Your task to perform on an android device: empty trash in google photos Image 0: 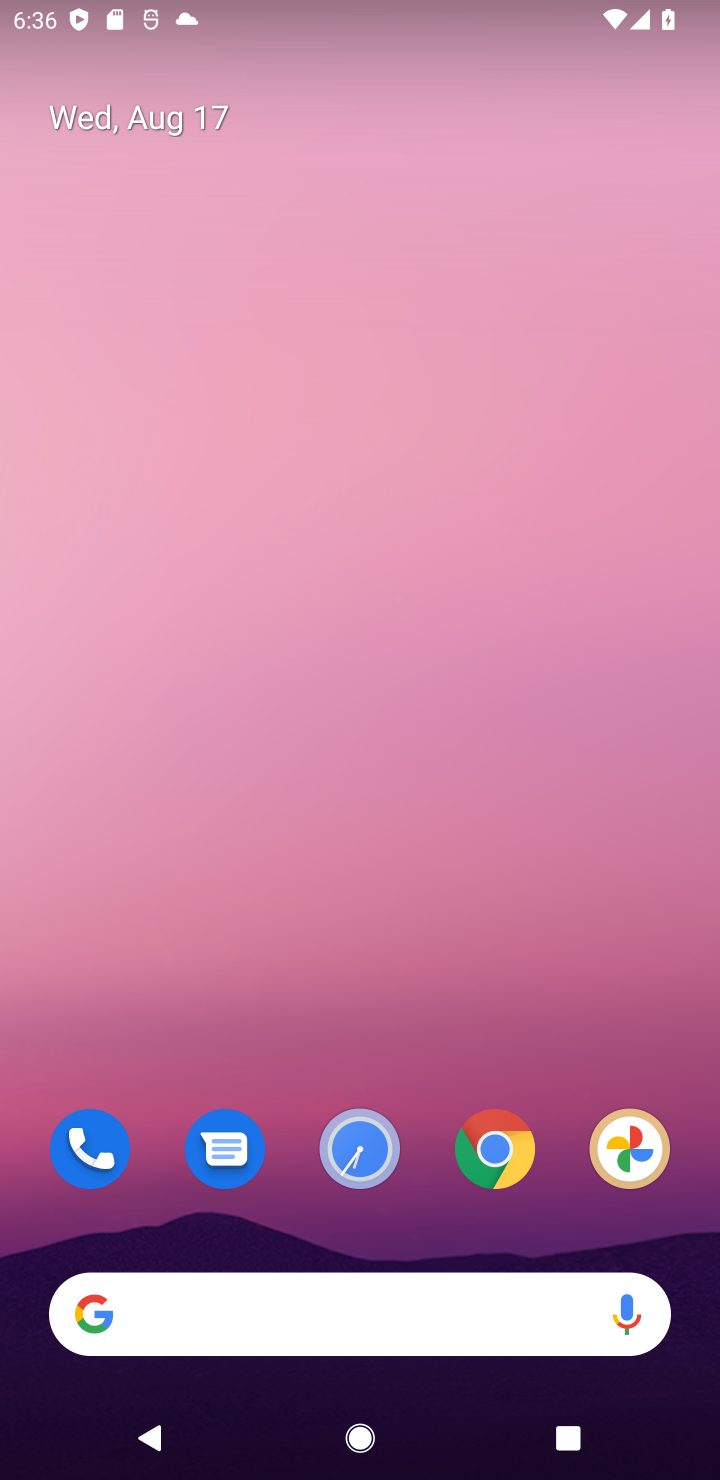
Step 0: click (637, 1151)
Your task to perform on an android device: empty trash in google photos Image 1: 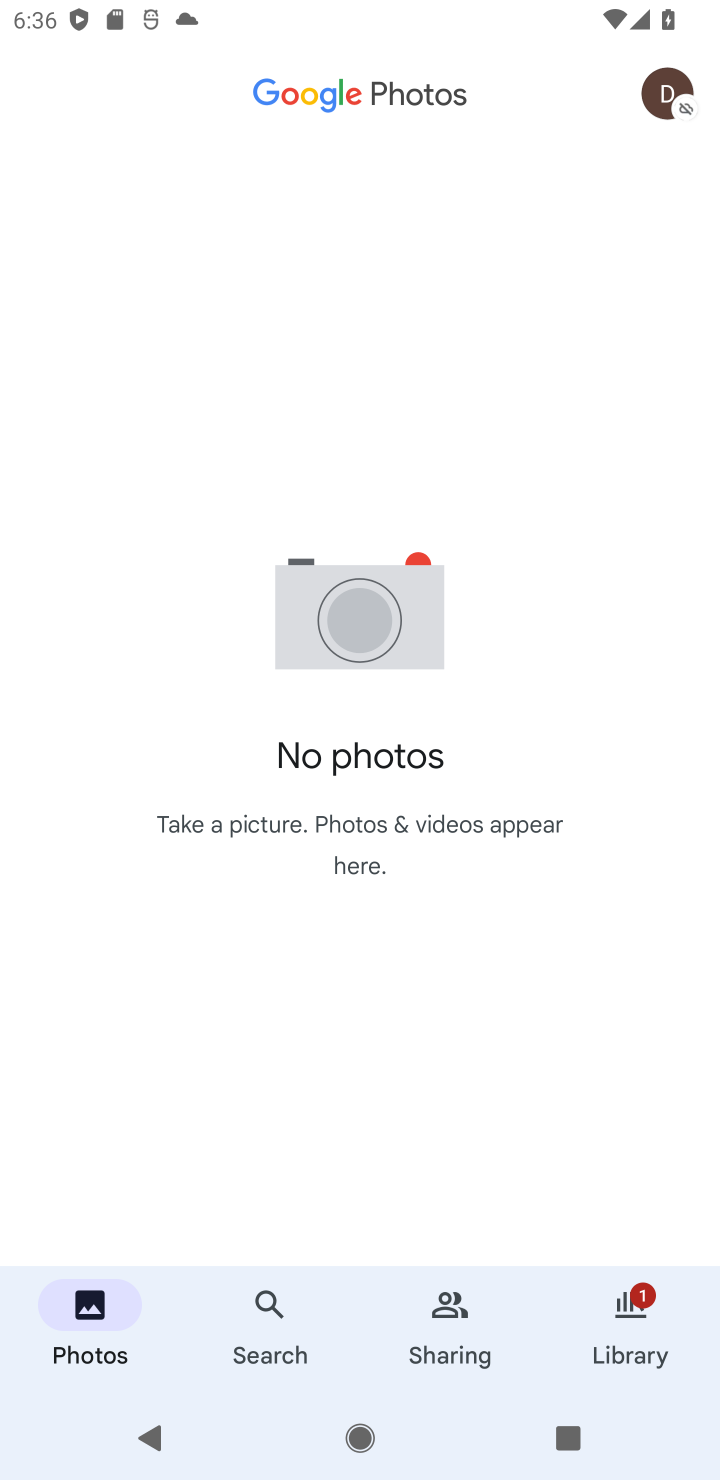
Step 1: click (635, 1307)
Your task to perform on an android device: empty trash in google photos Image 2: 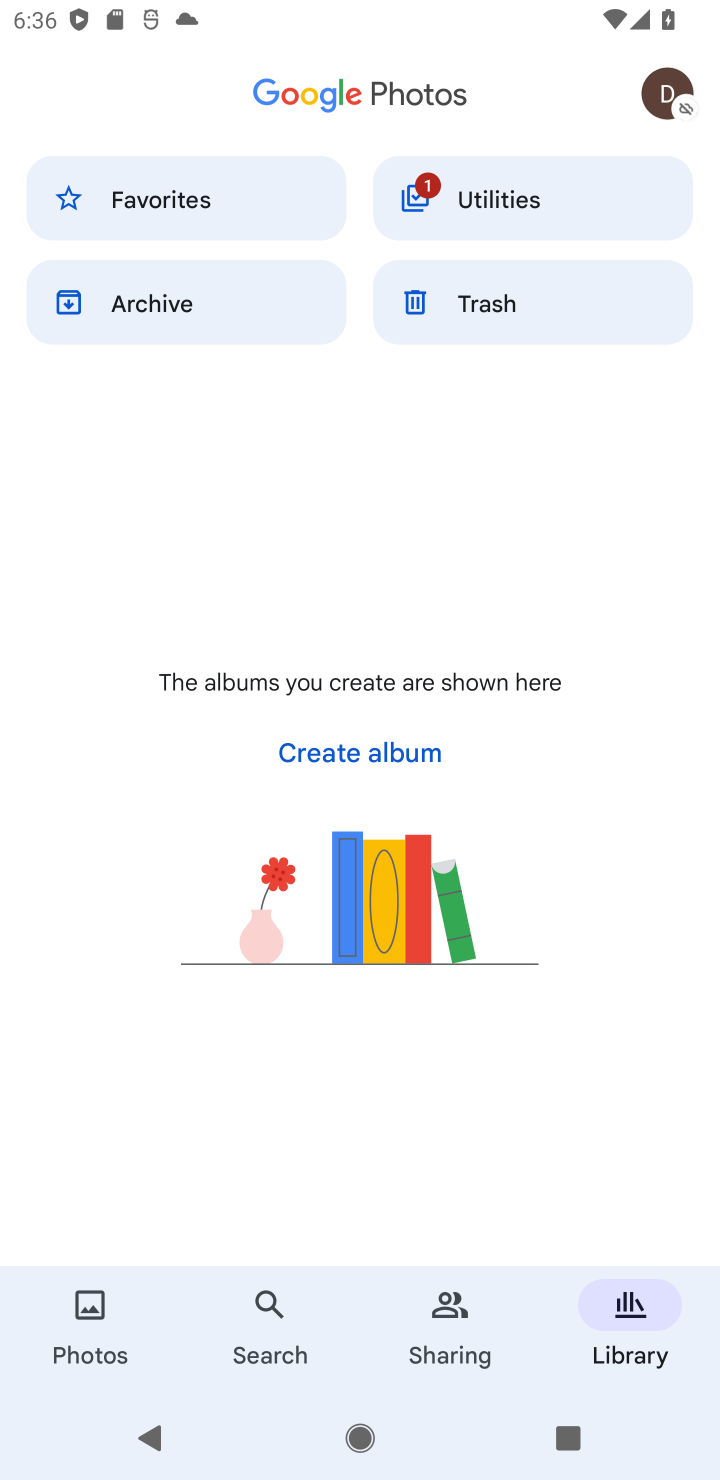
Step 2: click (470, 306)
Your task to perform on an android device: empty trash in google photos Image 3: 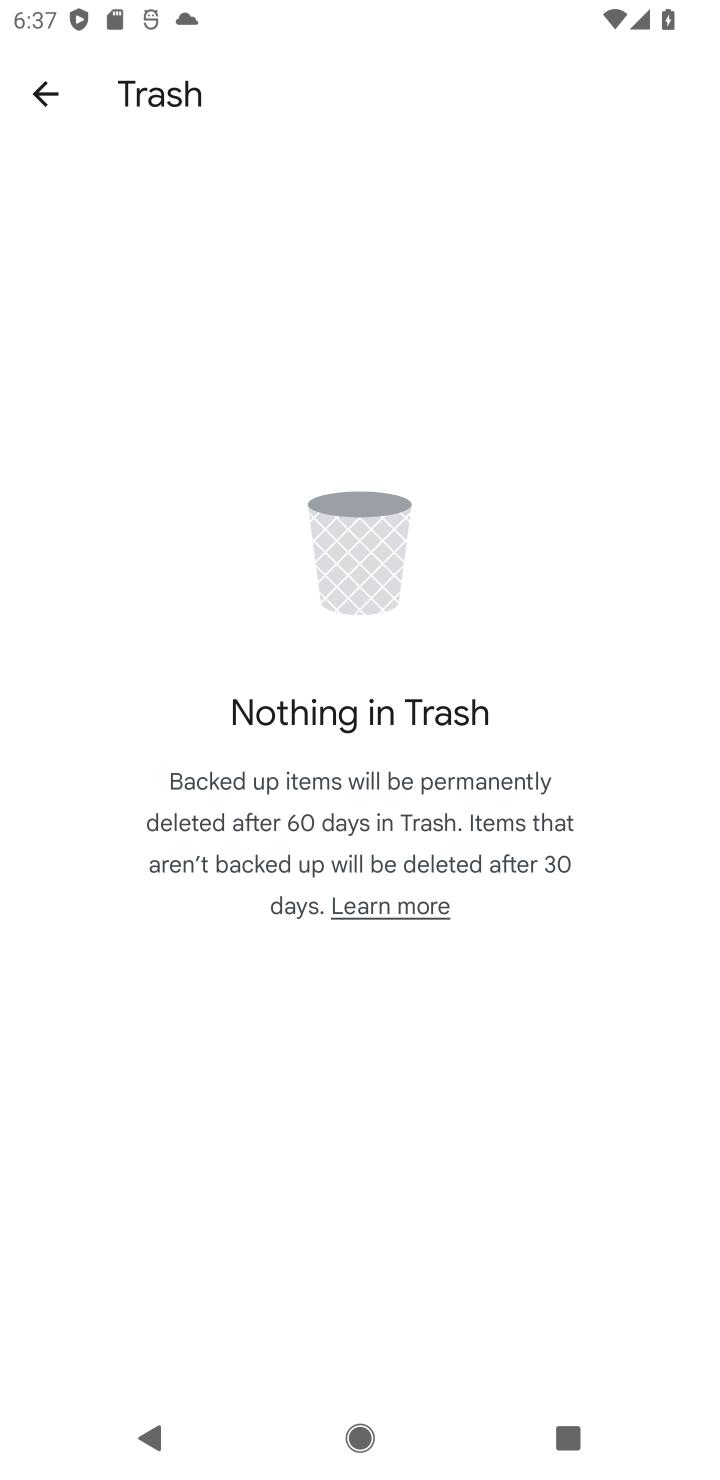
Step 3: task complete